Your task to perform on an android device: Toggle the flashlight Image 0: 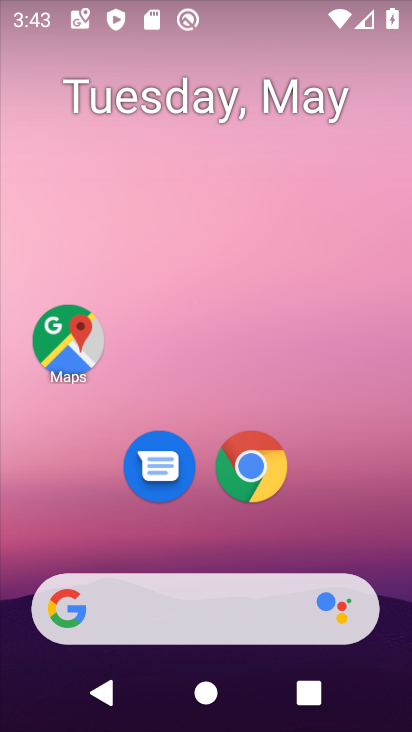
Step 0: drag from (230, 11) to (199, 441)
Your task to perform on an android device: Toggle the flashlight Image 1: 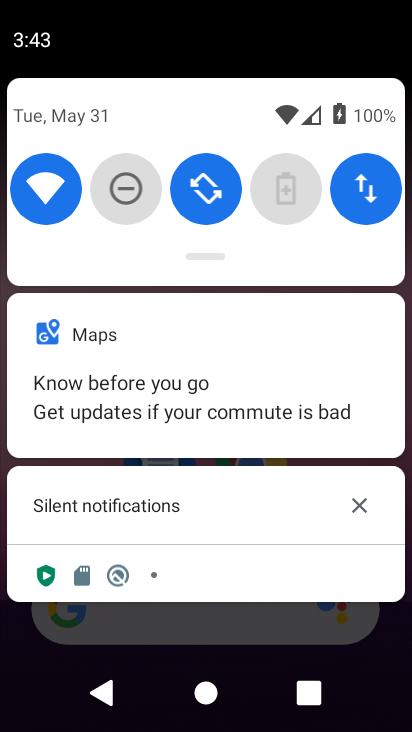
Step 1: drag from (189, 255) to (208, 719)
Your task to perform on an android device: Toggle the flashlight Image 2: 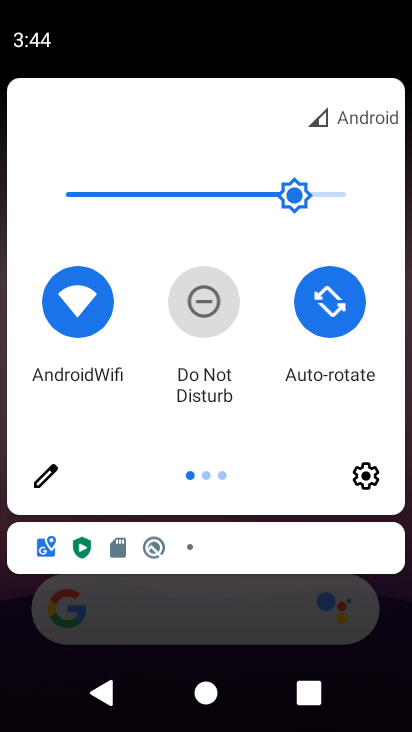
Step 2: click (28, 479)
Your task to perform on an android device: Toggle the flashlight Image 3: 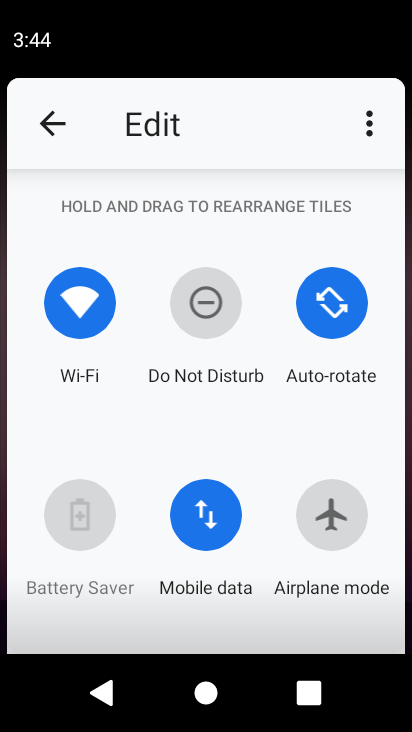
Step 3: task complete